Your task to perform on an android device: check out phone information Image 0: 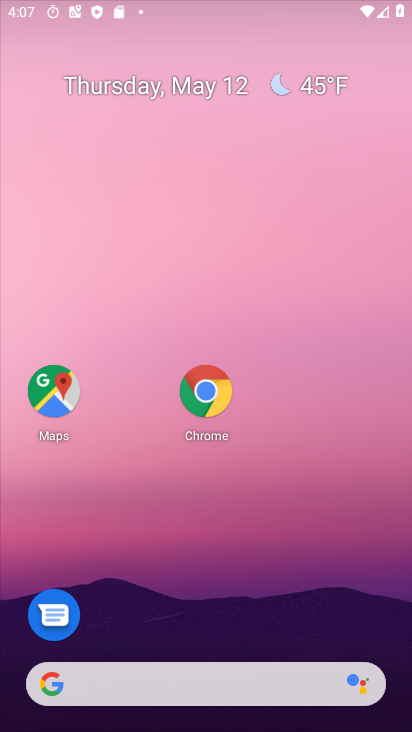
Step 0: drag from (217, 566) to (207, 116)
Your task to perform on an android device: check out phone information Image 1: 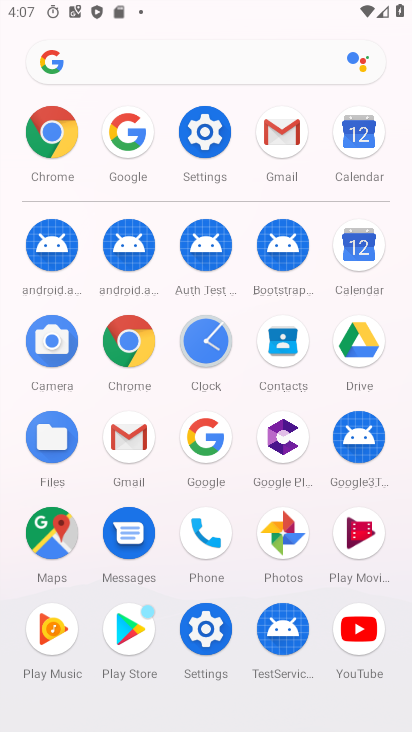
Step 1: click (209, 133)
Your task to perform on an android device: check out phone information Image 2: 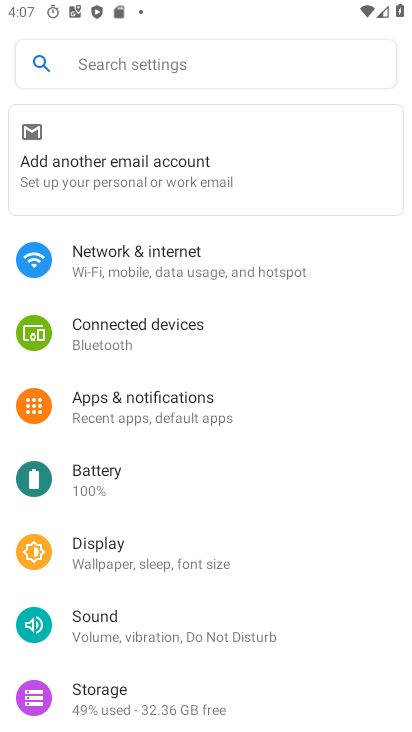
Step 2: drag from (232, 522) to (219, 88)
Your task to perform on an android device: check out phone information Image 3: 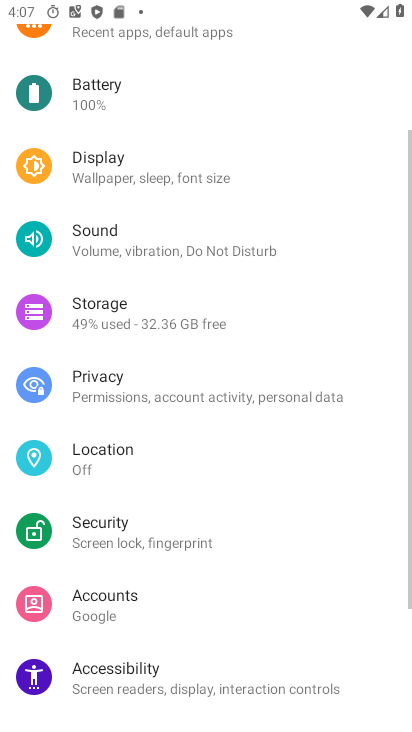
Step 3: drag from (195, 575) to (200, 160)
Your task to perform on an android device: check out phone information Image 4: 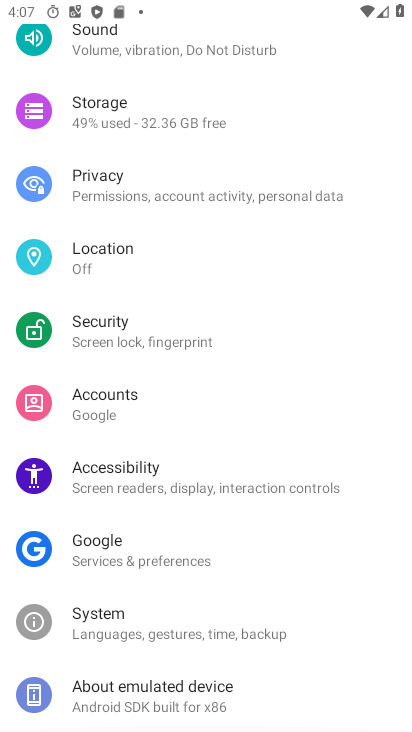
Step 4: click (156, 686)
Your task to perform on an android device: check out phone information Image 5: 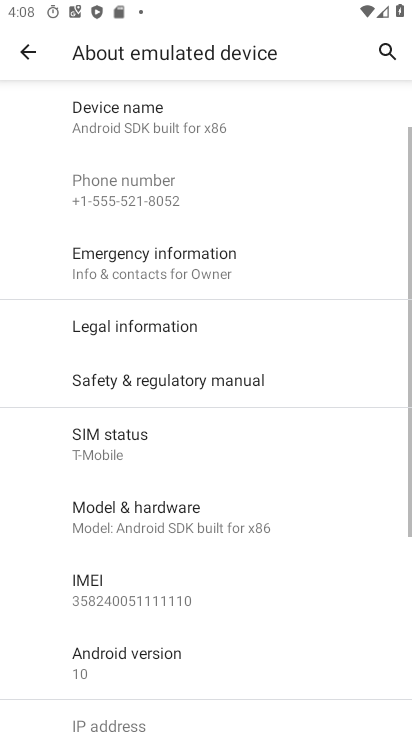
Step 5: task complete